Your task to perform on an android device: turn off notifications settings in the gmail app Image 0: 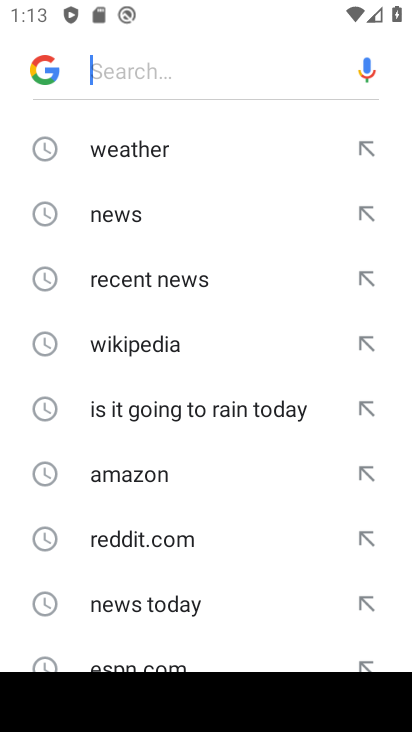
Step 0: press home button
Your task to perform on an android device: turn off notifications settings in the gmail app Image 1: 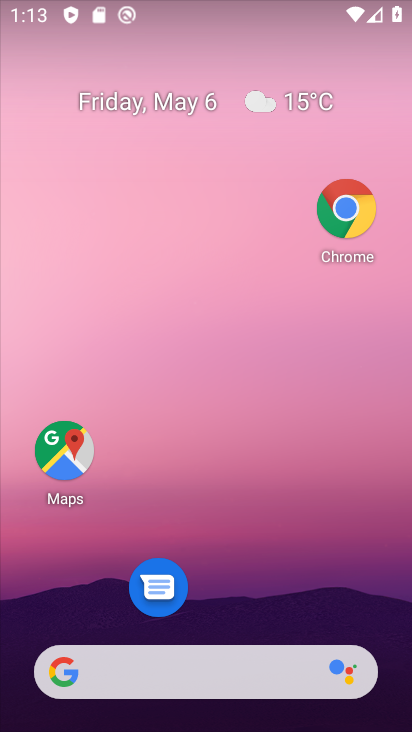
Step 1: drag from (269, 293) to (262, 172)
Your task to perform on an android device: turn off notifications settings in the gmail app Image 2: 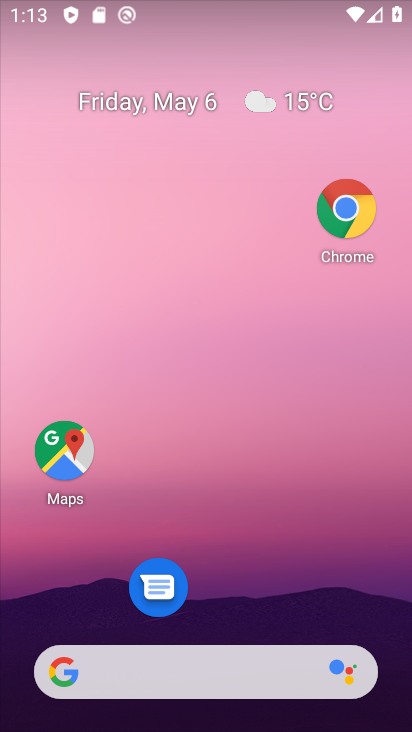
Step 2: drag from (293, 562) to (201, 18)
Your task to perform on an android device: turn off notifications settings in the gmail app Image 3: 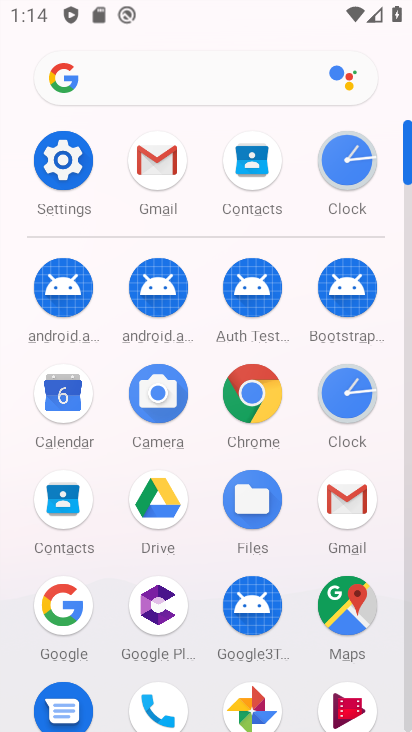
Step 3: click (329, 540)
Your task to perform on an android device: turn off notifications settings in the gmail app Image 4: 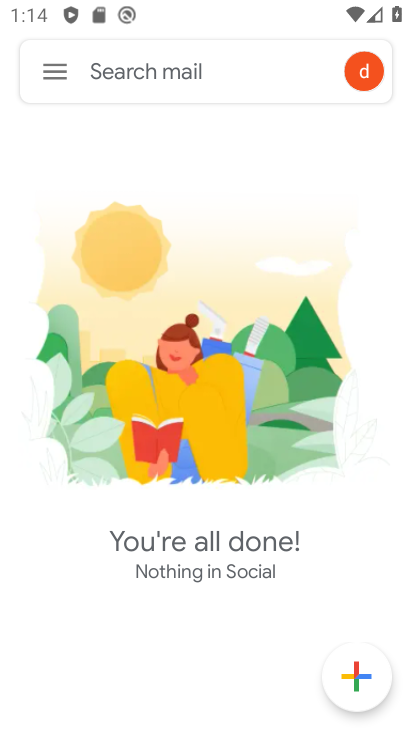
Step 4: click (61, 69)
Your task to perform on an android device: turn off notifications settings in the gmail app Image 5: 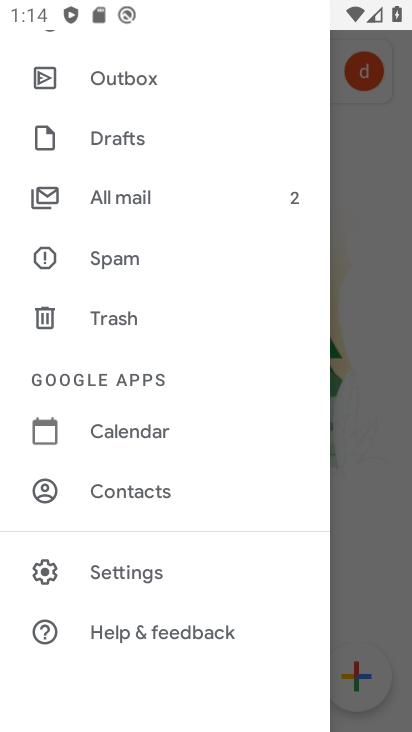
Step 5: click (121, 568)
Your task to perform on an android device: turn off notifications settings in the gmail app Image 6: 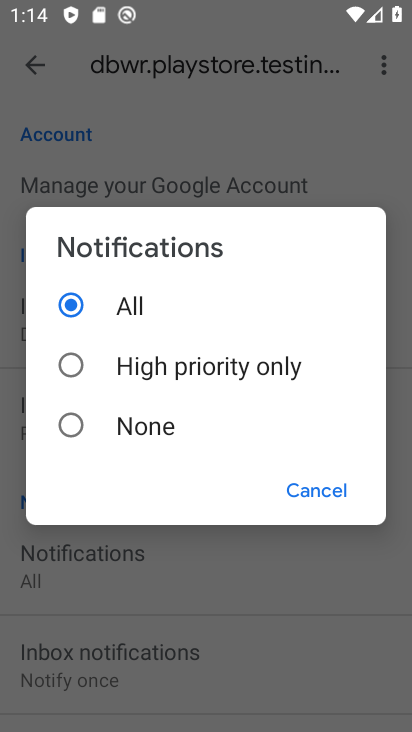
Step 6: click (67, 439)
Your task to perform on an android device: turn off notifications settings in the gmail app Image 7: 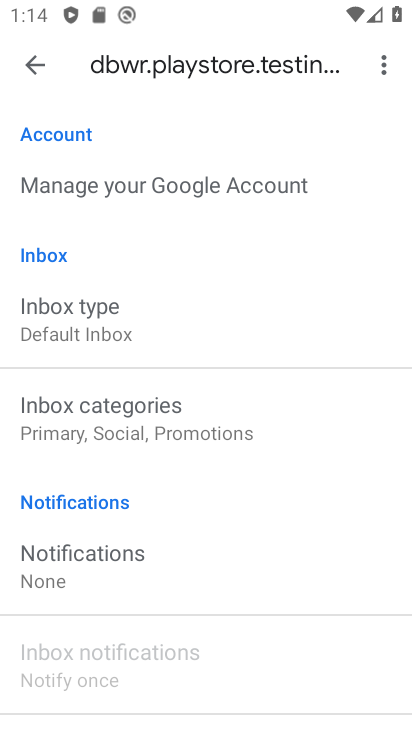
Step 7: task complete